Your task to perform on an android device: Go to battery settings Image 0: 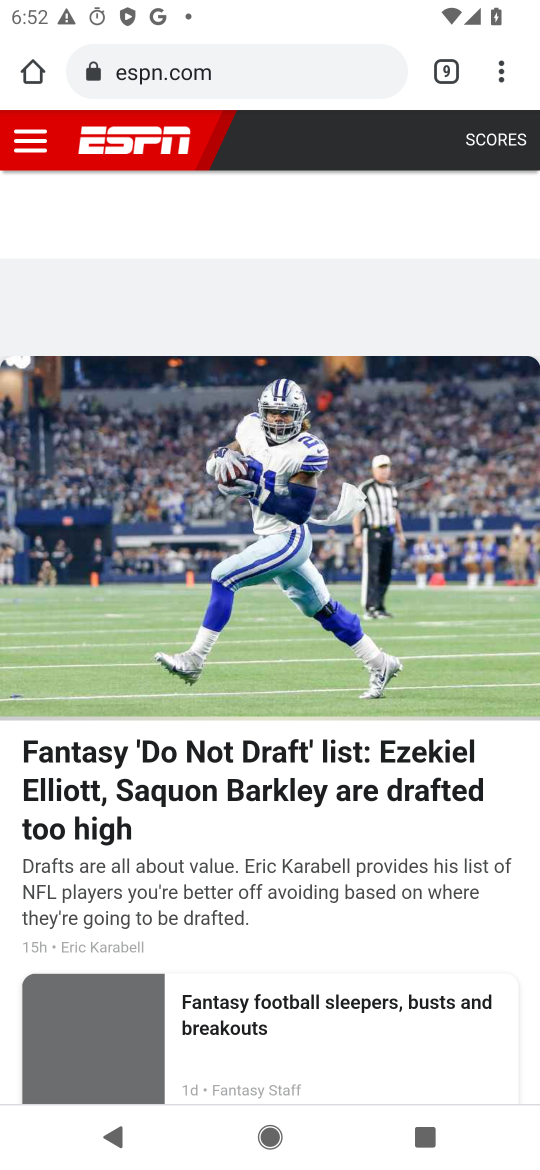
Step 0: press home button
Your task to perform on an android device: Go to battery settings Image 1: 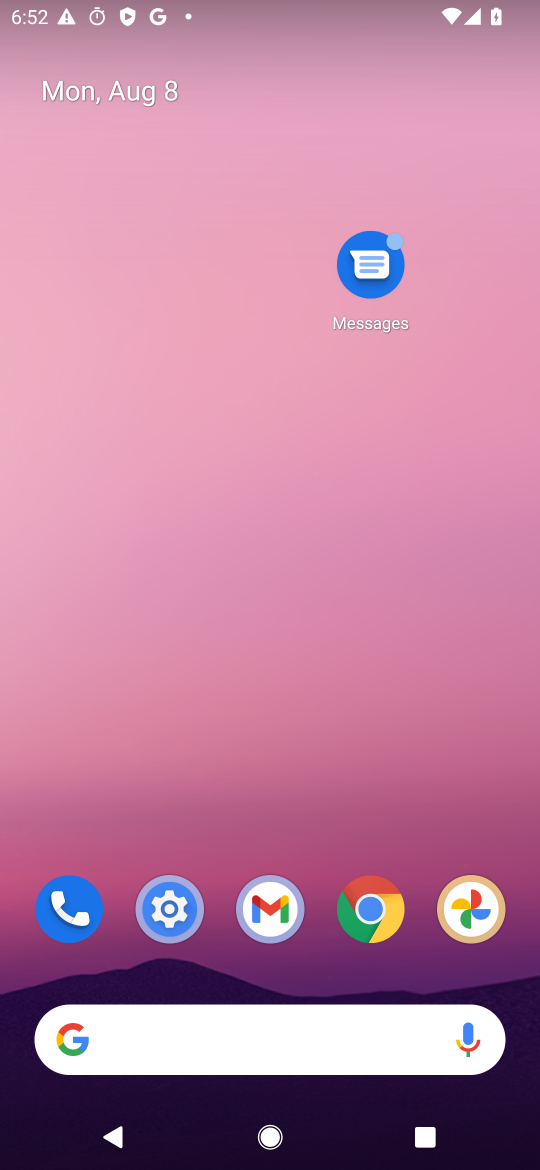
Step 1: drag from (237, 1043) to (414, 147)
Your task to perform on an android device: Go to battery settings Image 2: 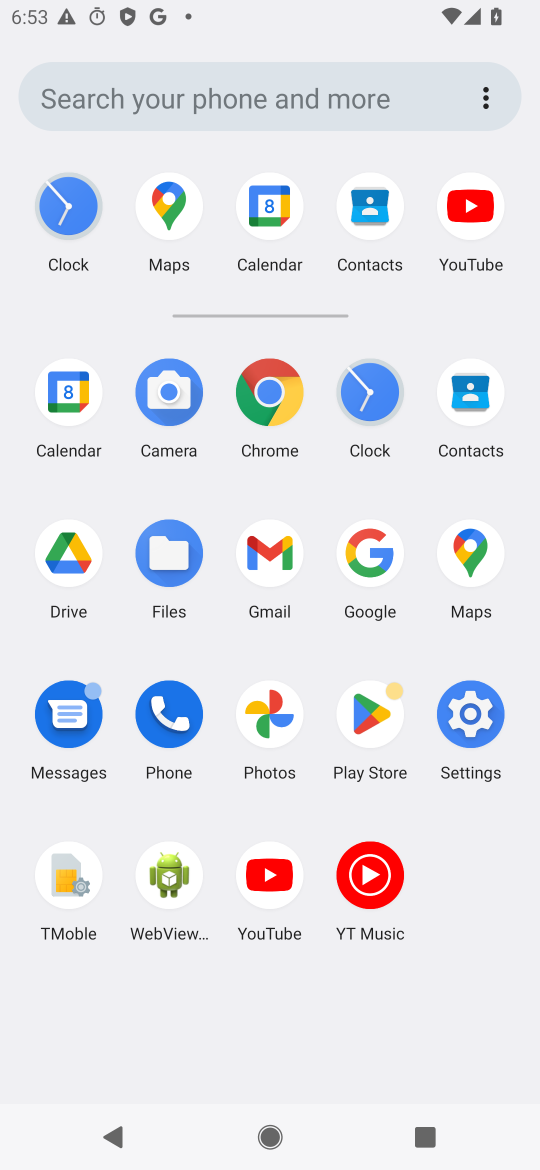
Step 2: click (467, 717)
Your task to perform on an android device: Go to battery settings Image 3: 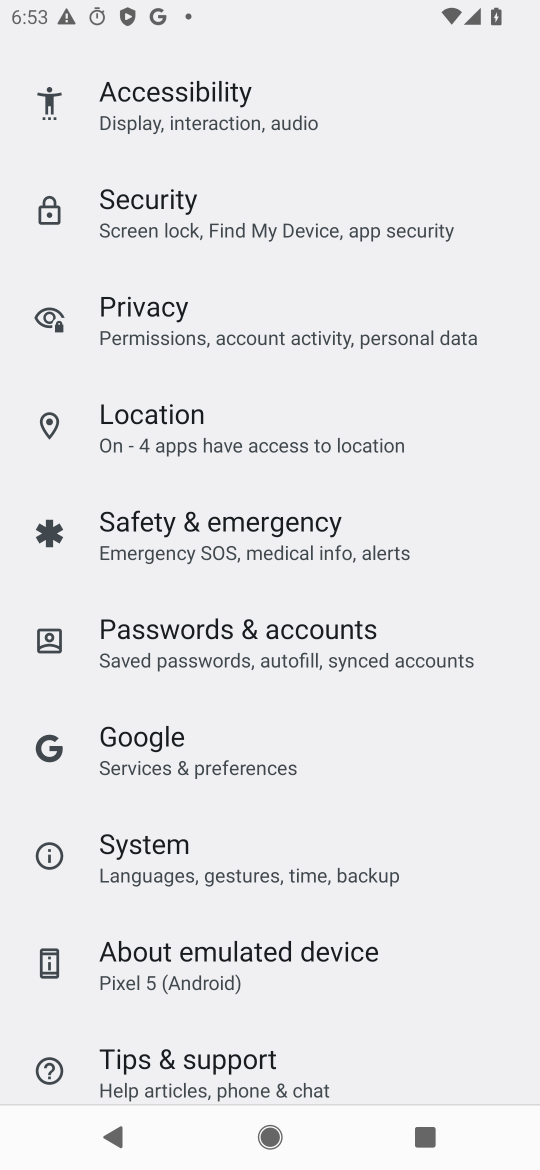
Step 3: drag from (464, 205) to (396, 1024)
Your task to perform on an android device: Go to battery settings Image 4: 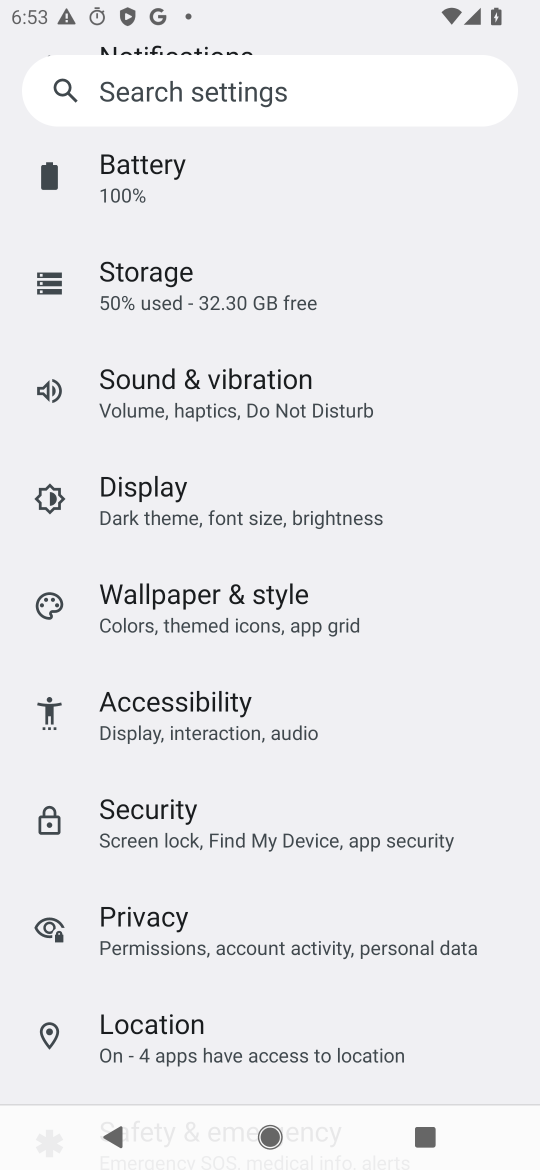
Step 4: click (129, 168)
Your task to perform on an android device: Go to battery settings Image 5: 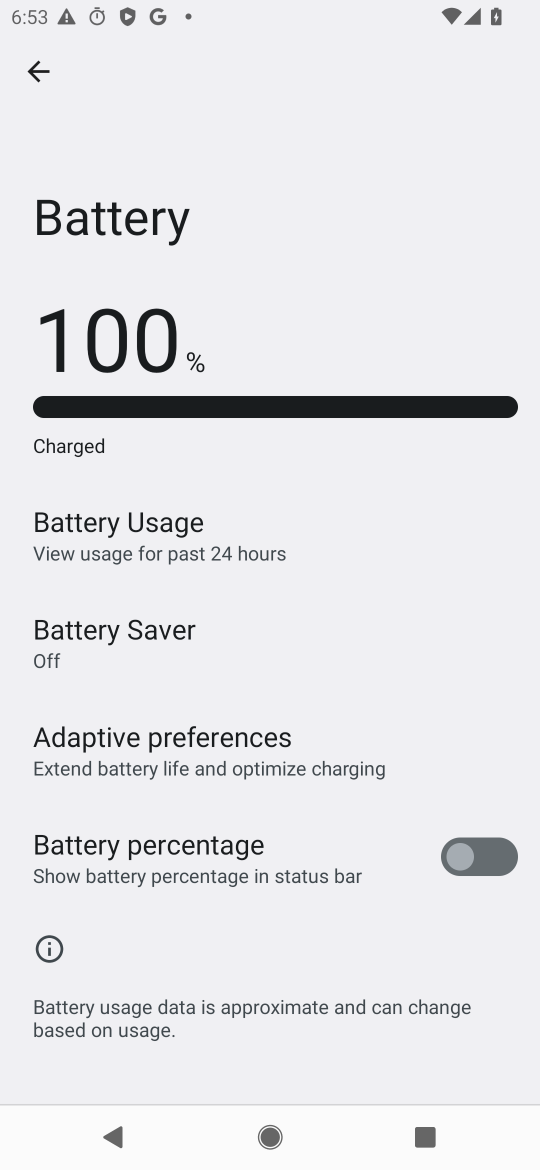
Step 5: task complete